Your task to perform on an android device: check android version Image 0: 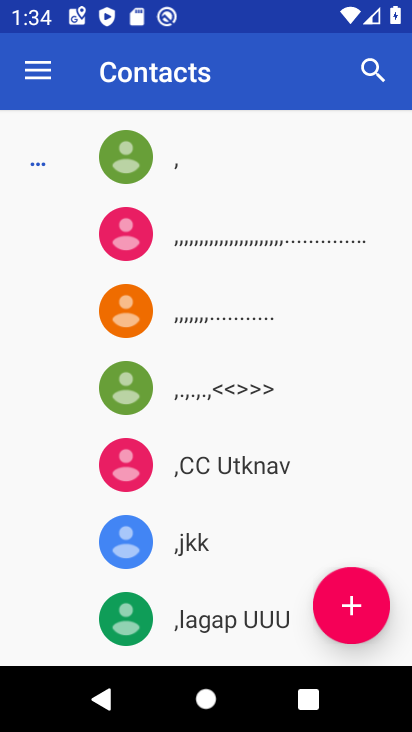
Step 0: press home button
Your task to perform on an android device: check android version Image 1: 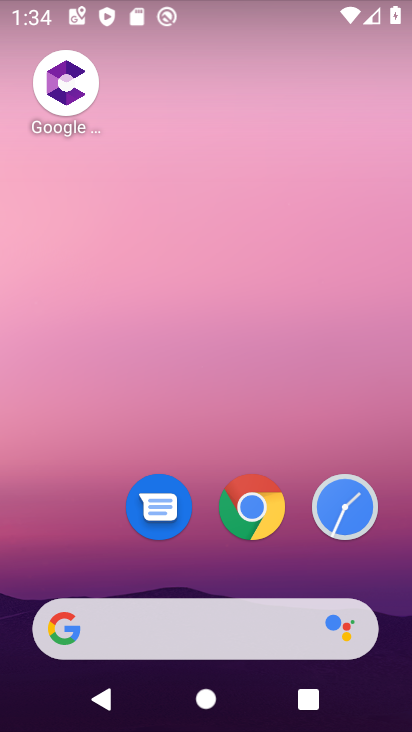
Step 1: drag from (282, 559) to (264, 209)
Your task to perform on an android device: check android version Image 2: 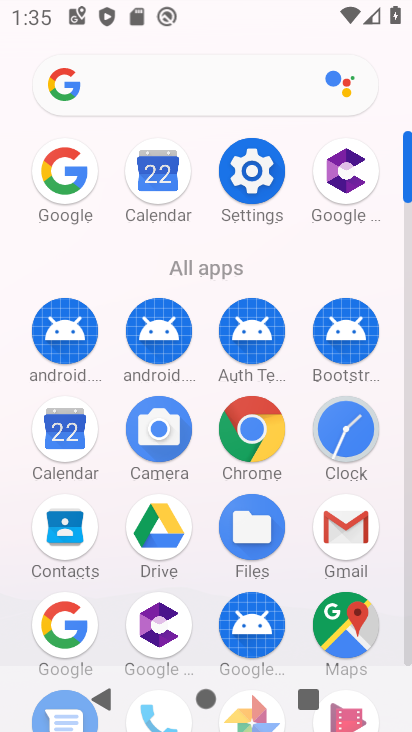
Step 2: click (254, 205)
Your task to perform on an android device: check android version Image 3: 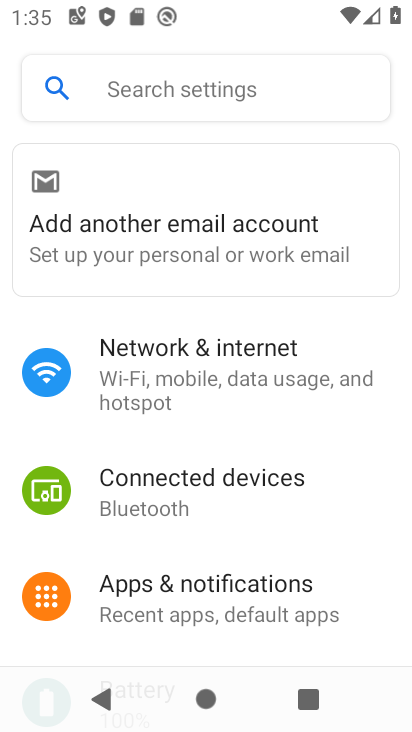
Step 3: drag from (240, 589) to (279, 125)
Your task to perform on an android device: check android version Image 4: 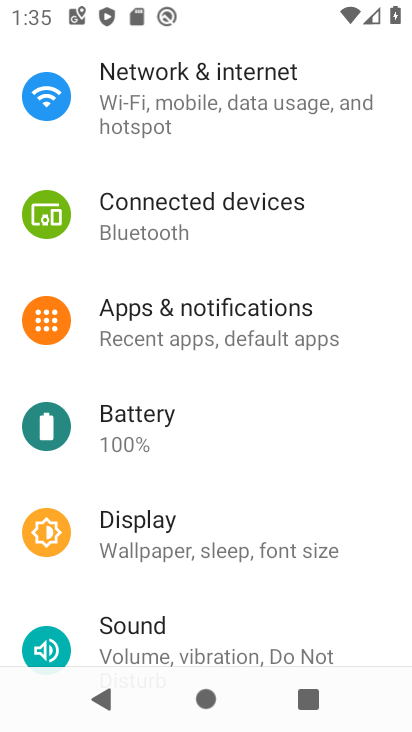
Step 4: drag from (212, 612) to (275, 80)
Your task to perform on an android device: check android version Image 5: 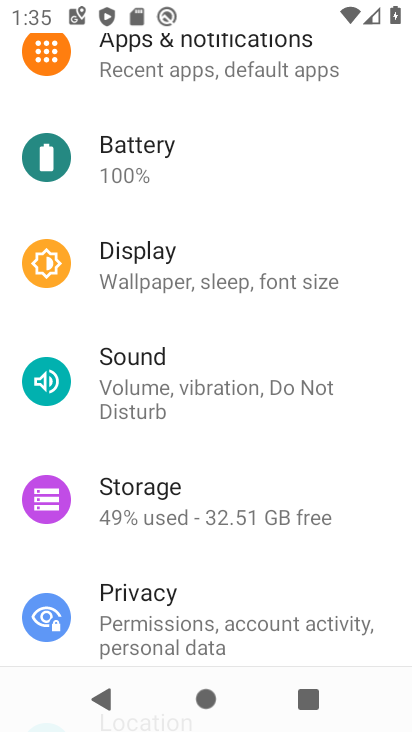
Step 5: drag from (179, 553) to (192, 215)
Your task to perform on an android device: check android version Image 6: 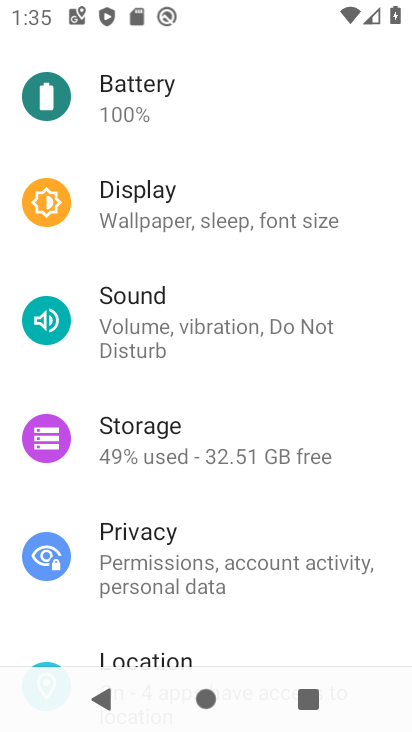
Step 6: drag from (187, 601) to (314, 179)
Your task to perform on an android device: check android version Image 7: 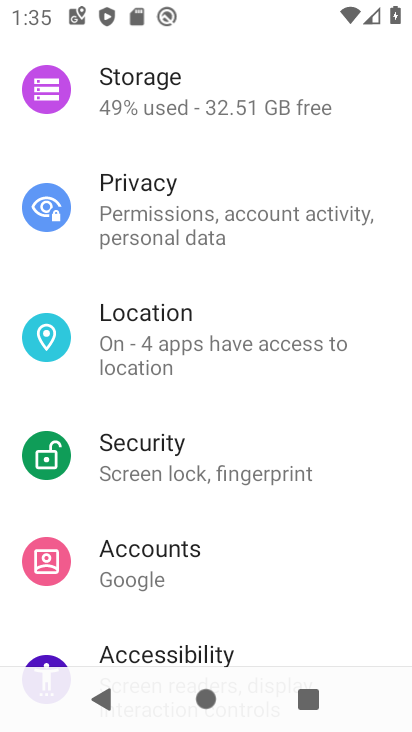
Step 7: drag from (194, 557) to (204, 121)
Your task to perform on an android device: check android version Image 8: 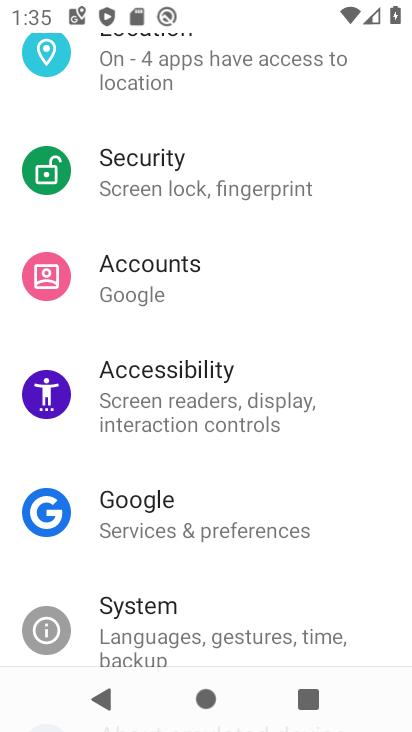
Step 8: drag from (175, 590) to (223, 192)
Your task to perform on an android device: check android version Image 9: 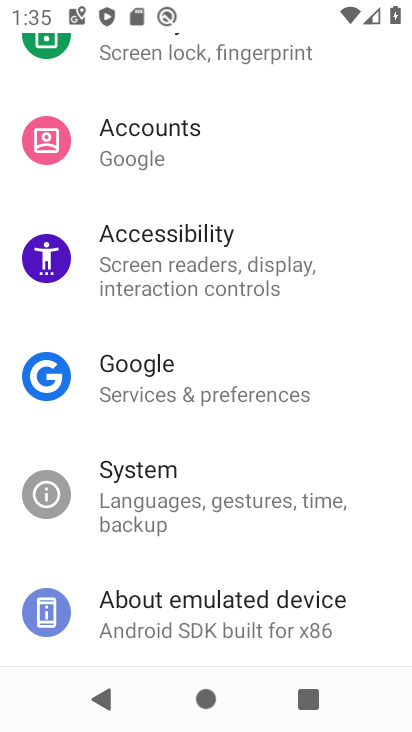
Step 9: click (210, 622)
Your task to perform on an android device: check android version Image 10: 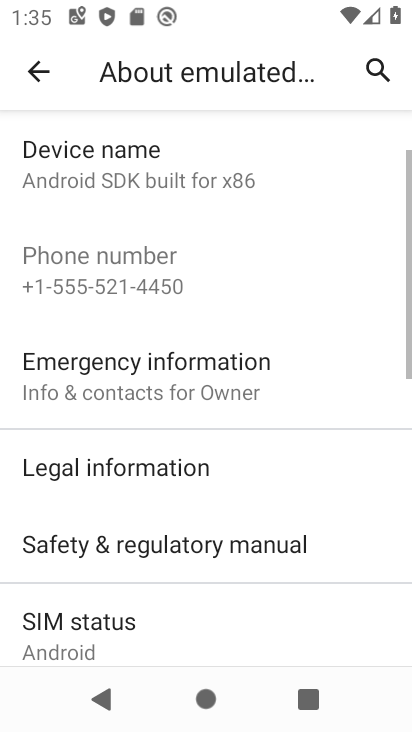
Step 10: drag from (191, 605) to (227, 143)
Your task to perform on an android device: check android version Image 11: 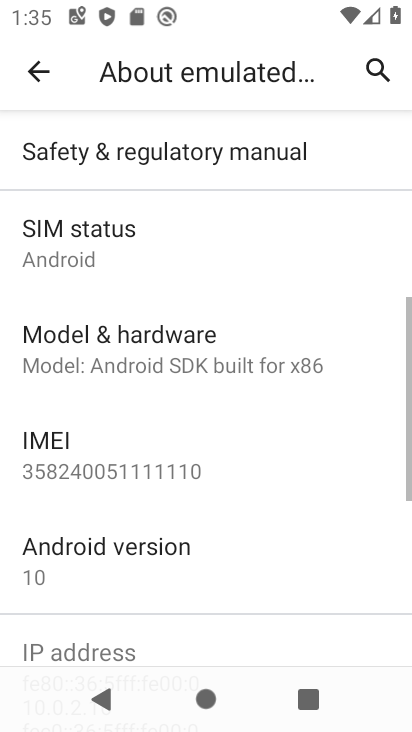
Step 11: click (100, 581)
Your task to perform on an android device: check android version Image 12: 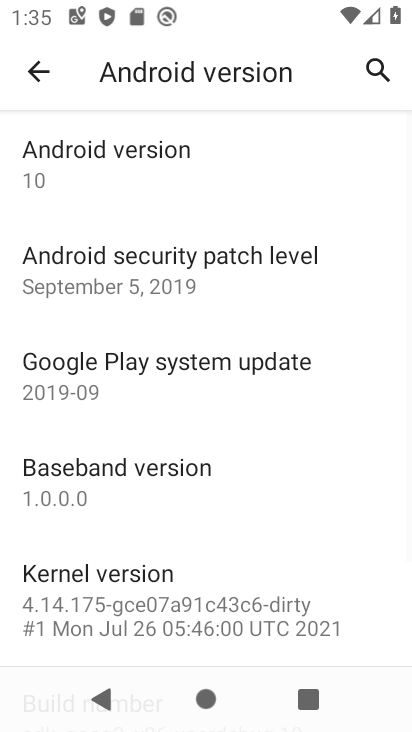
Step 12: task complete